Your task to perform on an android device: Show me productivity apps on the Play Store Image 0: 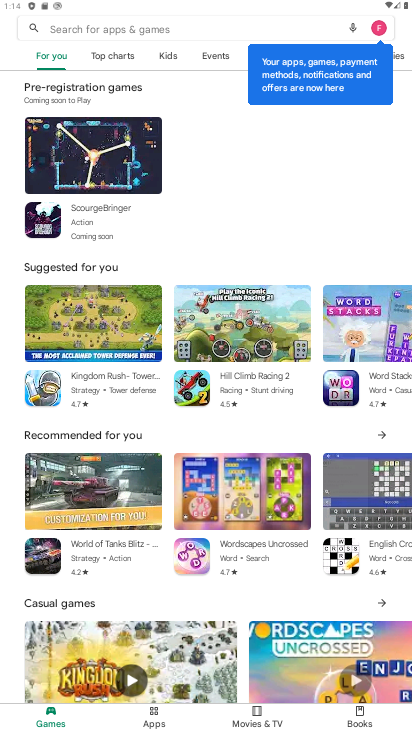
Step 0: click (151, 720)
Your task to perform on an android device: Show me productivity apps on the Play Store Image 1: 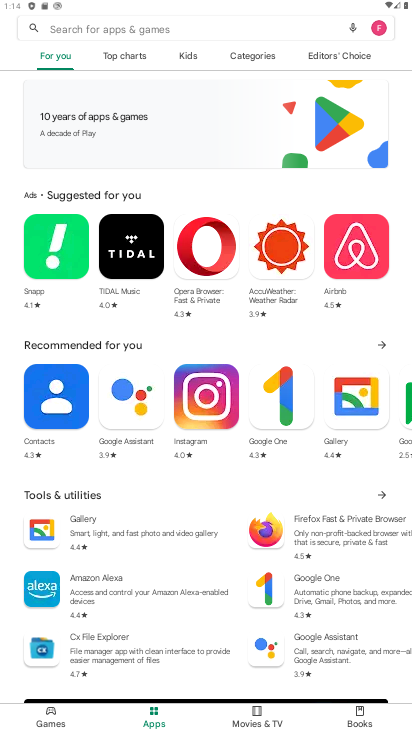
Step 1: click (140, 60)
Your task to perform on an android device: Show me productivity apps on the Play Store Image 2: 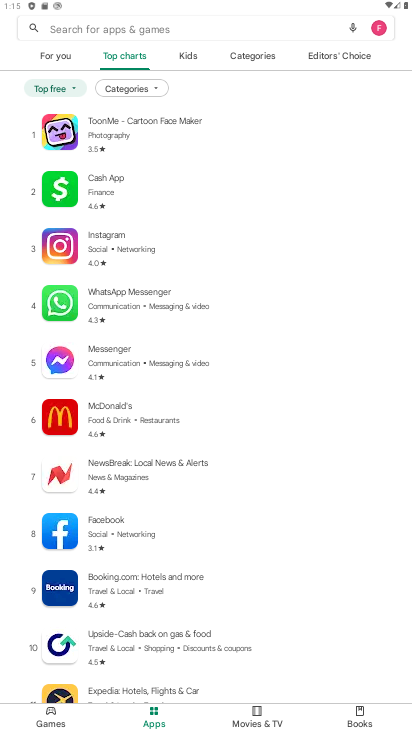
Step 2: task complete